Your task to perform on an android device: Open Youtube and go to "Your channel" Image 0: 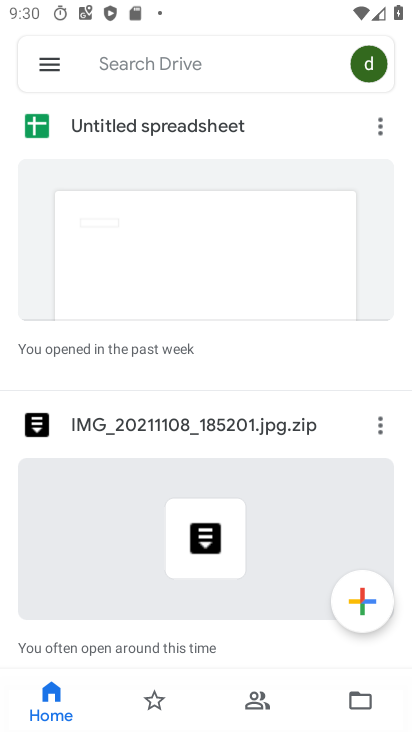
Step 0: press home button
Your task to perform on an android device: Open Youtube and go to "Your channel" Image 1: 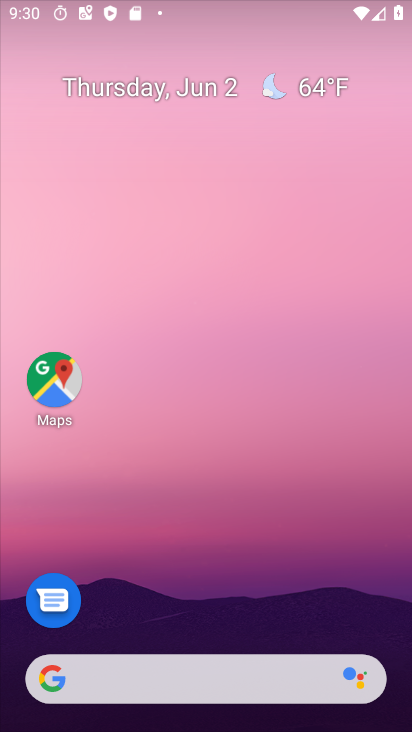
Step 1: drag from (296, 580) to (265, 24)
Your task to perform on an android device: Open Youtube and go to "Your channel" Image 2: 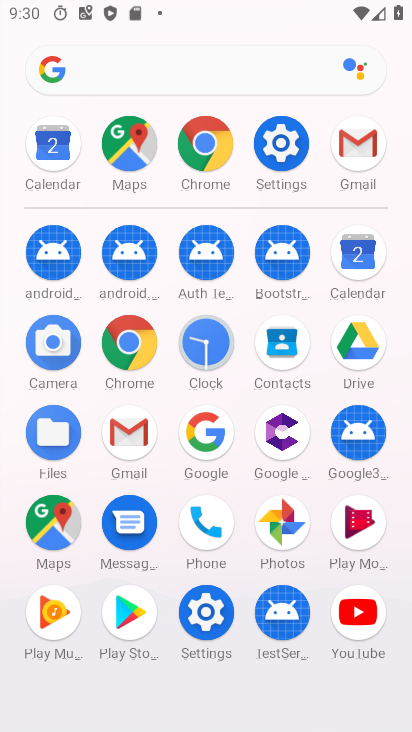
Step 2: click (358, 615)
Your task to perform on an android device: Open Youtube and go to "Your channel" Image 3: 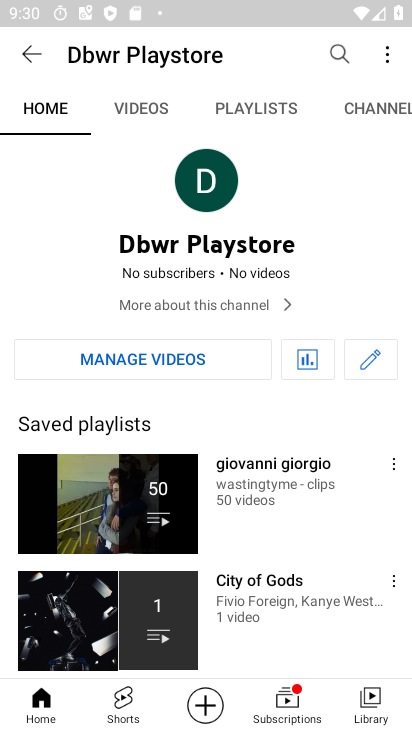
Step 3: task complete